Your task to perform on an android device: toggle data saver in the chrome app Image 0: 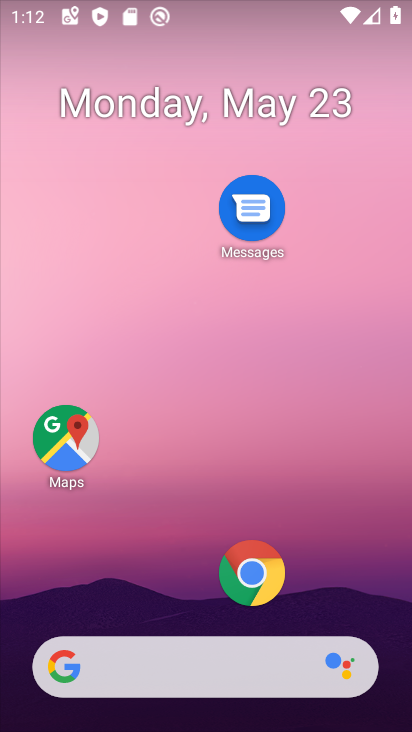
Step 0: drag from (179, 536) to (215, 125)
Your task to perform on an android device: toggle data saver in the chrome app Image 1: 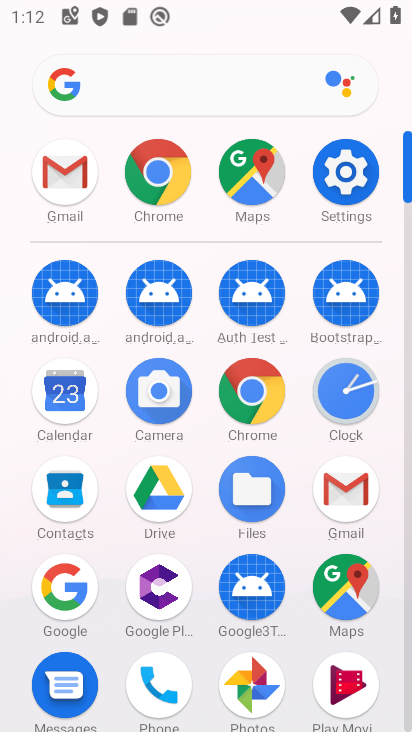
Step 1: click (172, 160)
Your task to perform on an android device: toggle data saver in the chrome app Image 2: 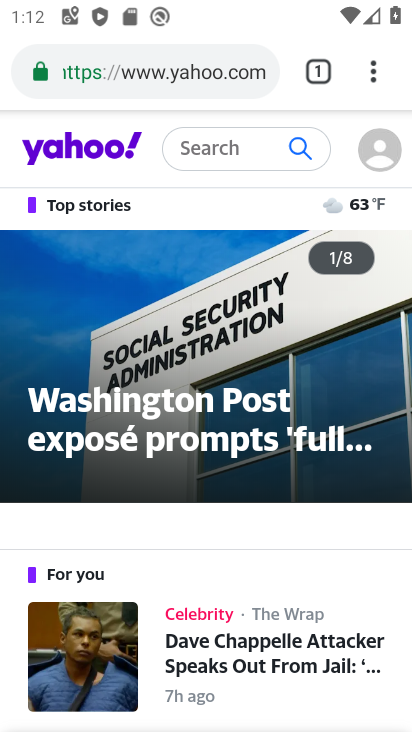
Step 2: click (370, 71)
Your task to perform on an android device: toggle data saver in the chrome app Image 3: 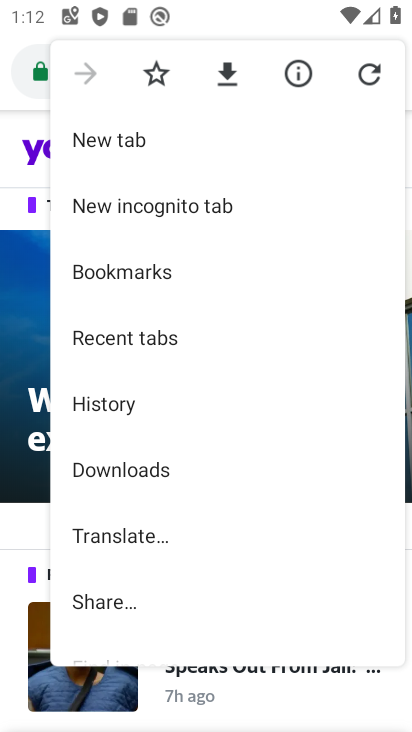
Step 3: drag from (241, 545) to (281, 148)
Your task to perform on an android device: toggle data saver in the chrome app Image 4: 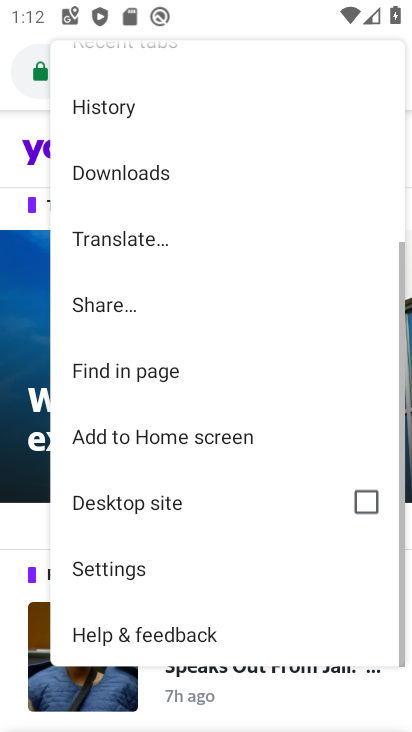
Step 4: click (123, 568)
Your task to perform on an android device: toggle data saver in the chrome app Image 5: 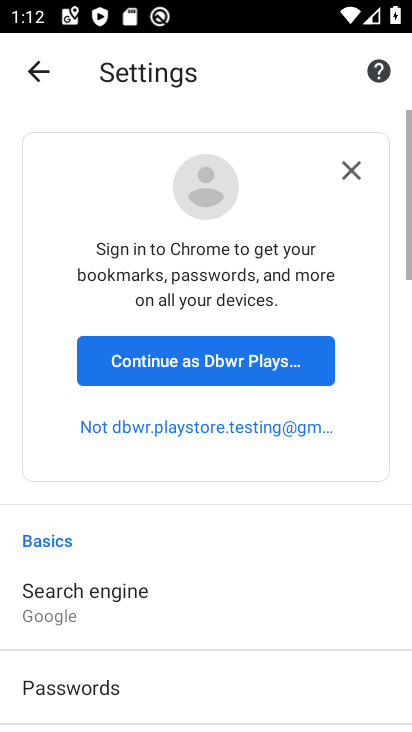
Step 5: drag from (263, 563) to (320, 58)
Your task to perform on an android device: toggle data saver in the chrome app Image 6: 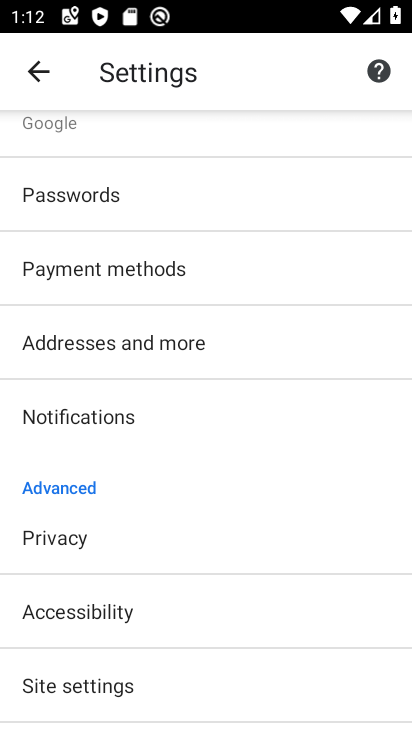
Step 6: drag from (212, 541) to (275, 154)
Your task to perform on an android device: toggle data saver in the chrome app Image 7: 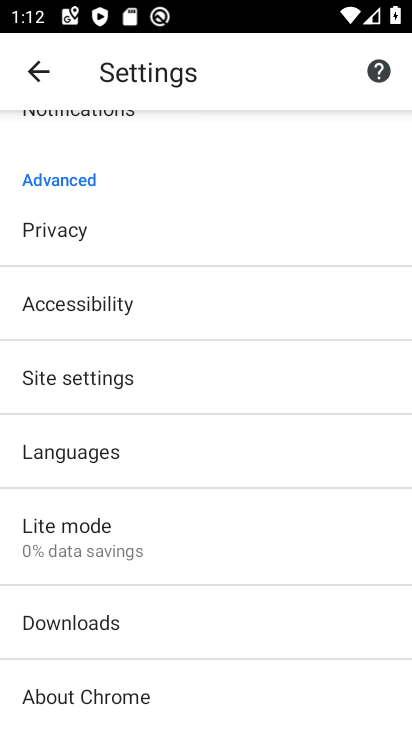
Step 7: click (164, 385)
Your task to perform on an android device: toggle data saver in the chrome app Image 8: 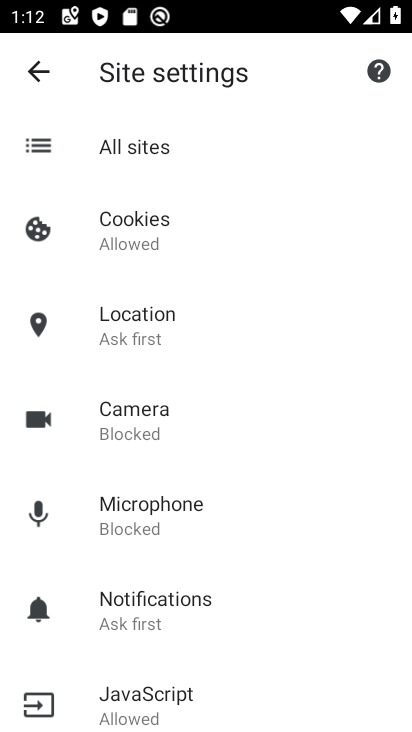
Step 8: drag from (287, 468) to (331, 142)
Your task to perform on an android device: toggle data saver in the chrome app Image 9: 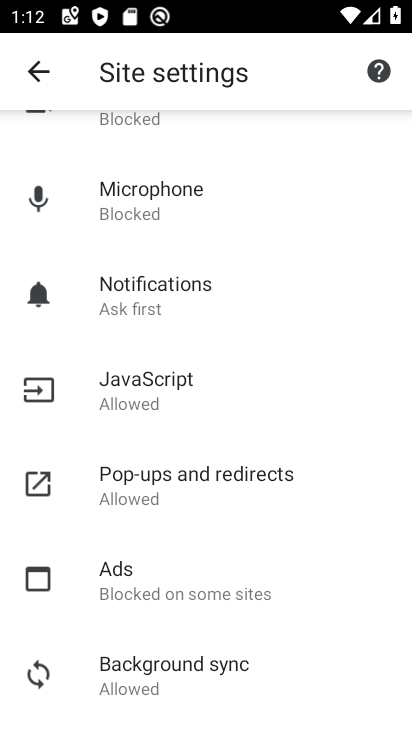
Step 9: drag from (276, 475) to (278, 118)
Your task to perform on an android device: toggle data saver in the chrome app Image 10: 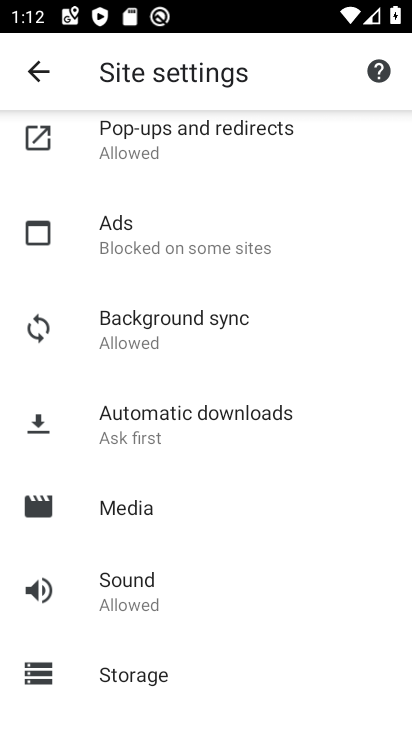
Step 10: drag from (266, 547) to (319, 190)
Your task to perform on an android device: toggle data saver in the chrome app Image 11: 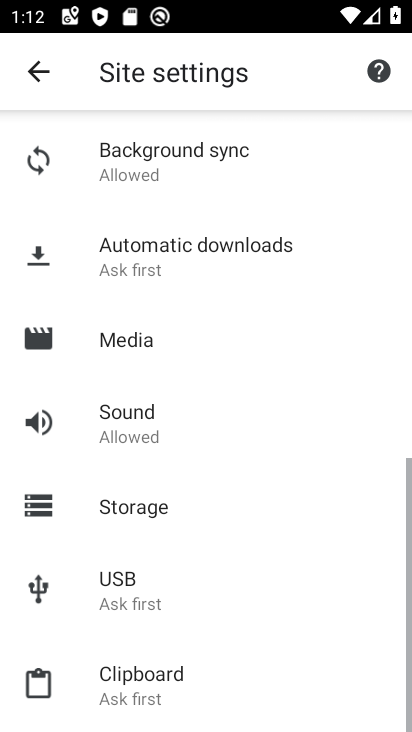
Step 11: drag from (270, 488) to (293, 238)
Your task to perform on an android device: toggle data saver in the chrome app Image 12: 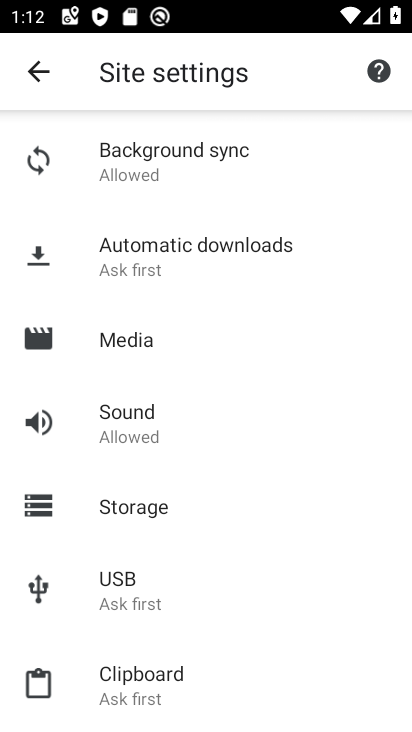
Step 12: drag from (333, 168) to (254, 541)
Your task to perform on an android device: toggle data saver in the chrome app Image 13: 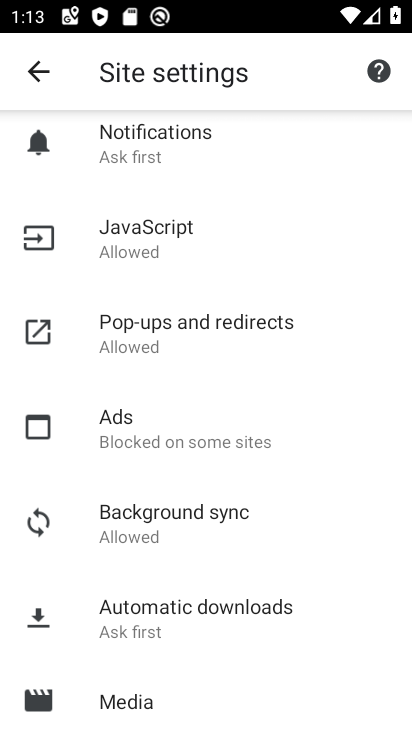
Step 13: drag from (342, 180) to (302, 686)
Your task to perform on an android device: toggle data saver in the chrome app Image 14: 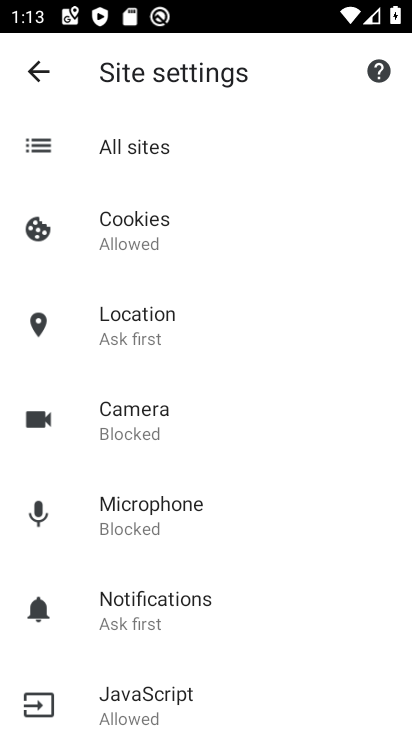
Step 14: drag from (299, 227) to (245, 482)
Your task to perform on an android device: toggle data saver in the chrome app Image 15: 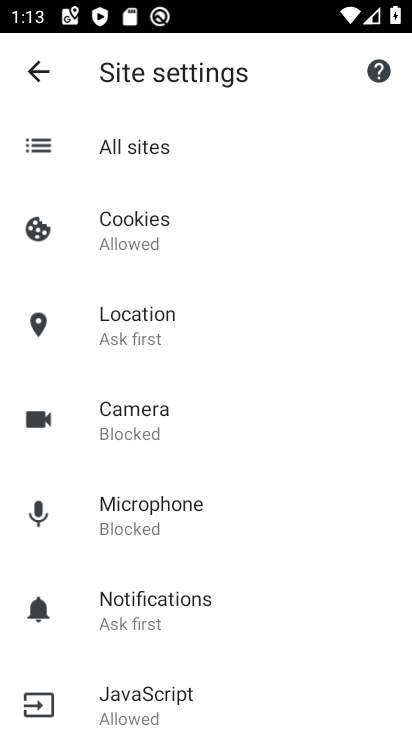
Step 15: click (32, 66)
Your task to perform on an android device: toggle data saver in the chrome app Image 16: 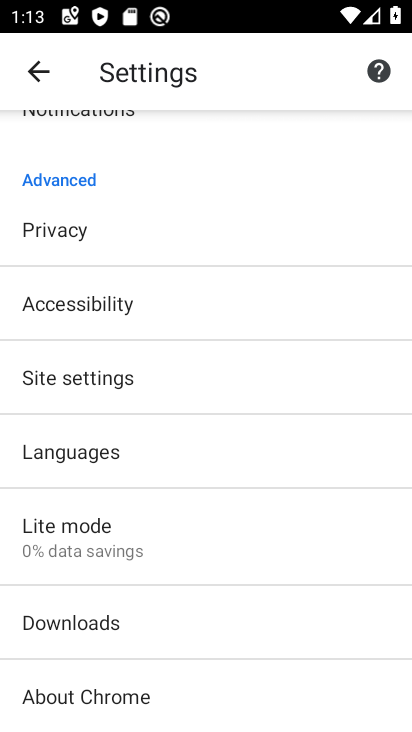
Step 16: click (182, 378)
Your task to perform on an android device: toggle data saver in the chrome app Image 17: 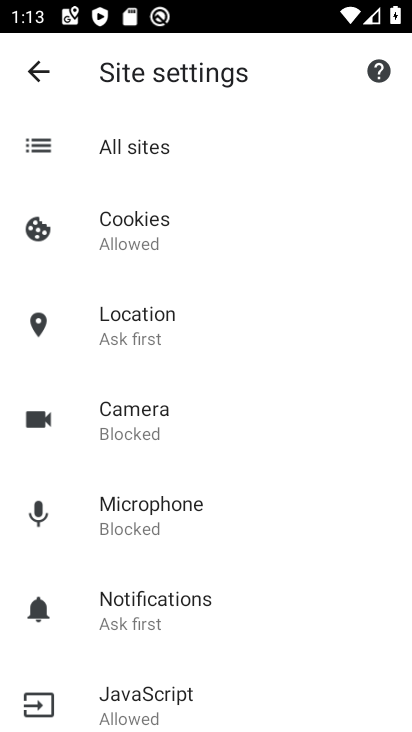
Step 17: drag from (284, 572) to (356, 186)
Your task to perform on an android device: toggle data saver in the chrome app Image 18: 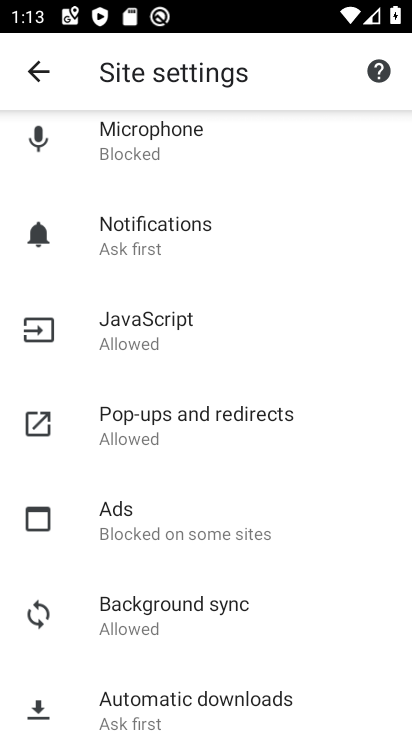
Step 18: press back button
Your task to perform on an android device: toggle data saver in the chrome app Image 19: 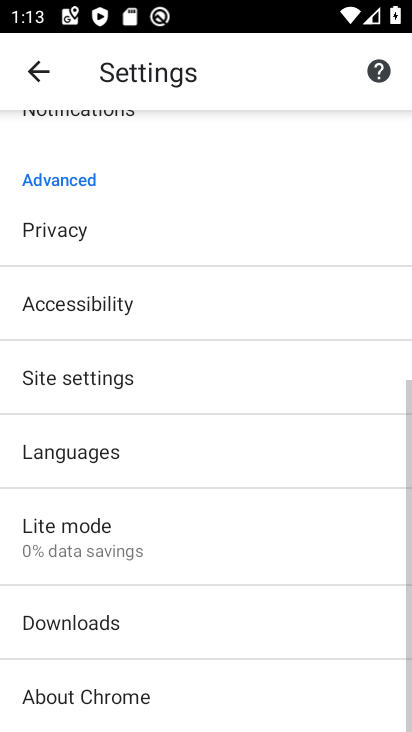
Step 19: click (124, 547)
Your task to perform on an android device: toggle data saver in the chrome app Image 20: 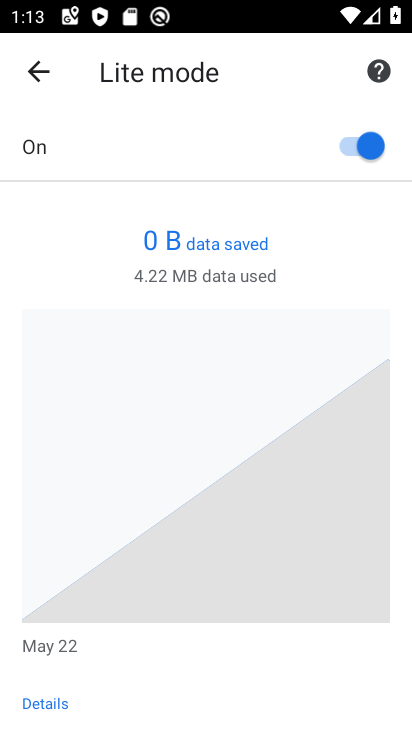
Step 20: click (364, 142)
Your task to perform on an android device: toggle data saver in the chrome app Image 21: 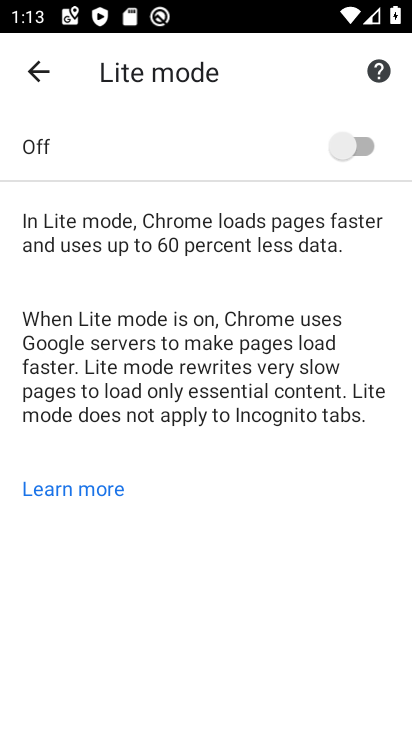
Step 21: task complete